Your task to perform on an android device: What's the weather today? Image 0: 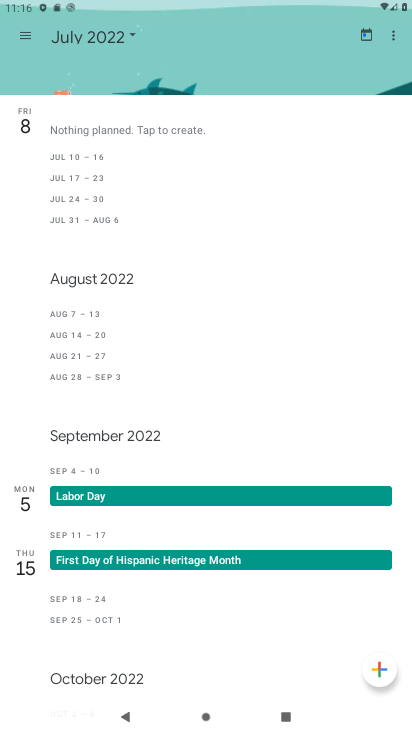
Step 0: press home button
Your task to perform on an android device: What's the weather today? Image 1: 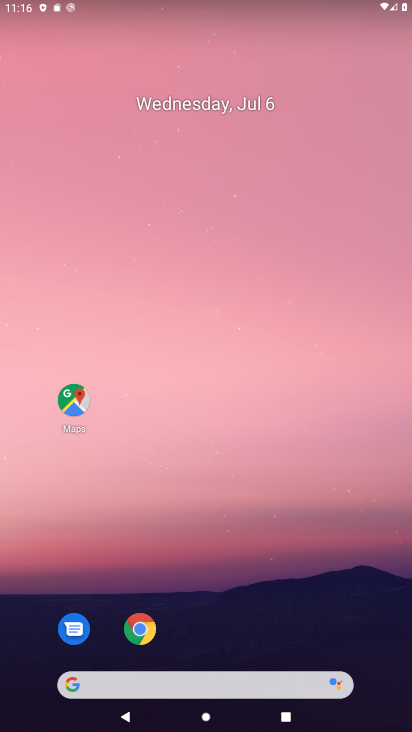
Step 1: click (243, 682)
Your task to perform on an android device: What's the weather today? Image 2: 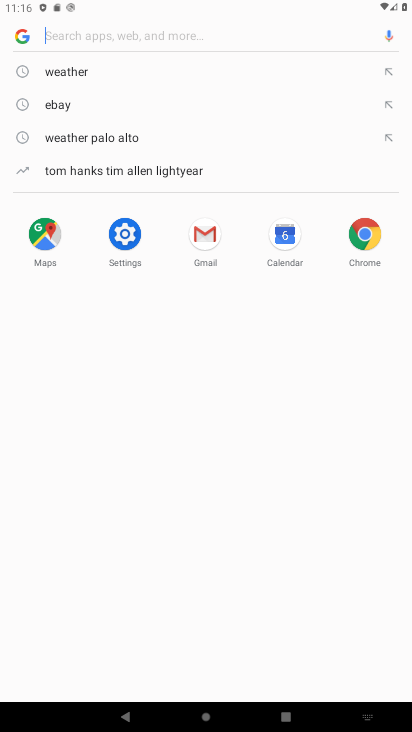
Step 2: type "weather today"
Your task to perform on an android device: What's the weather today? Image 3: 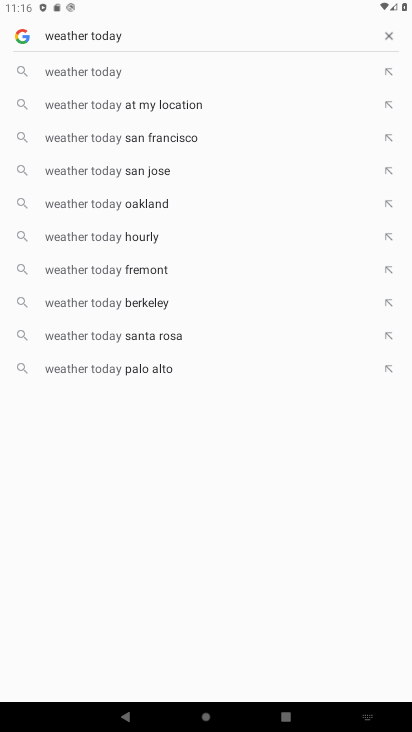
Step 3: click (119, 75)
Your task to perform on an android device: What's the weather today? Image 4: 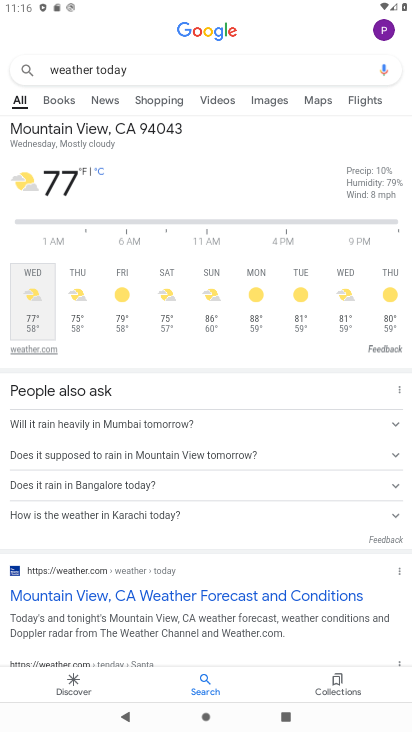
Step 4: click (74, 310)
Your task to perform on an android device: What's the weather today? Image 5: 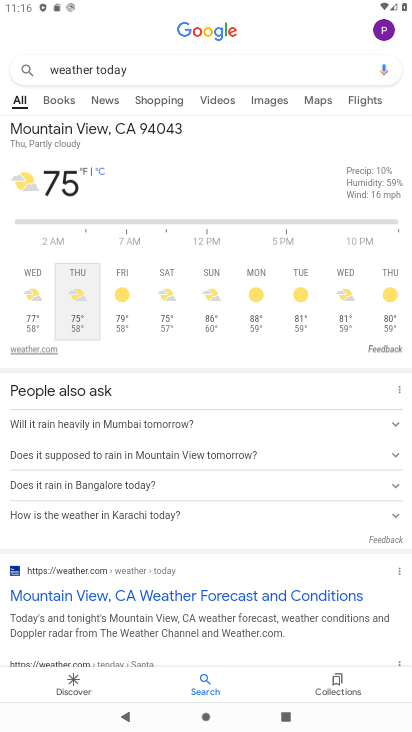
Step 5: task complete